Your task to perform on an android device: Open Google Chrome and open the bookmarks view Image 0: 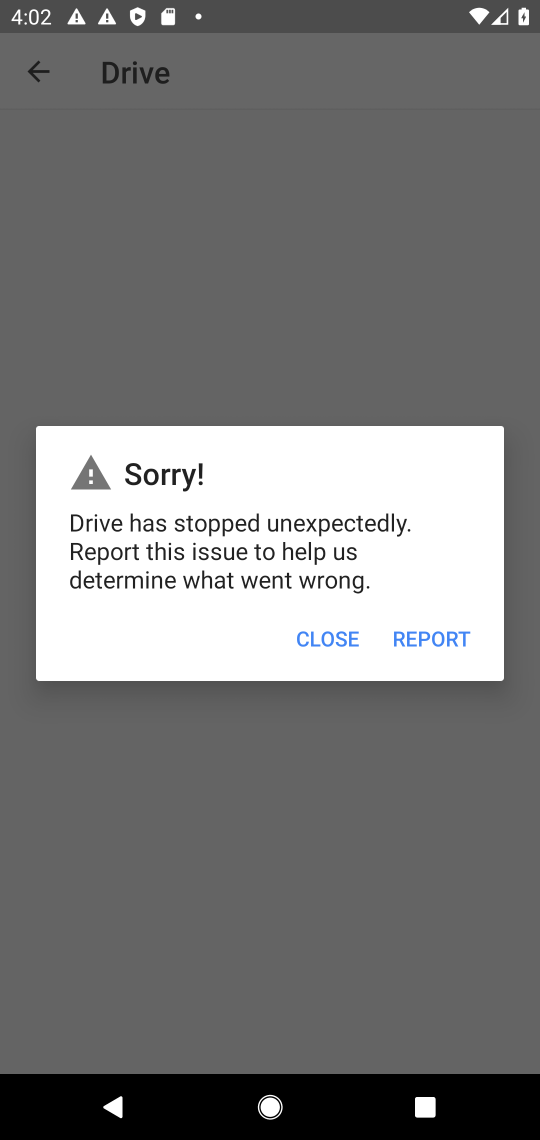
Step 0: press home button
Your task to perform on an android device: Open Google Chrome and open the bookmarks view Image 1: 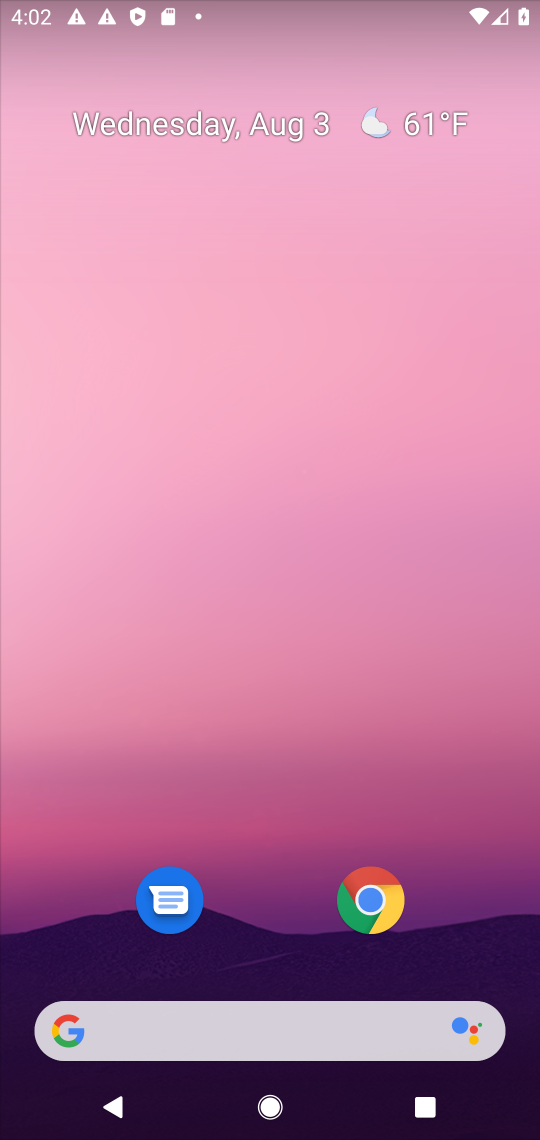
Step 1: click (381, 894)
Your task to perform on an android device: Open Google Chrome and open the bookmarks view Image 2: 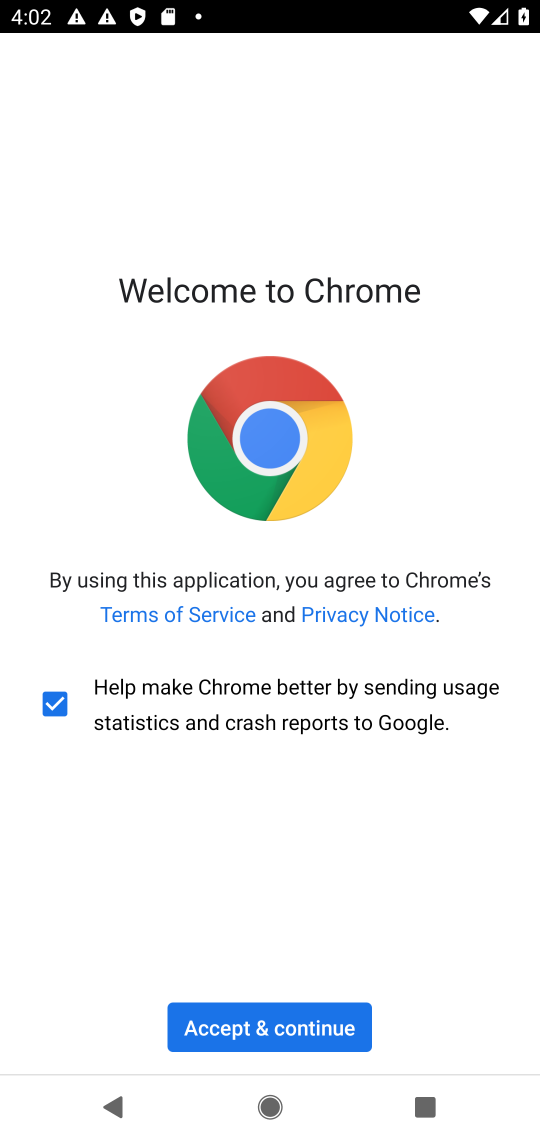
Step 2: click (298, 1024)
Your task to perform on an android device: Open Google Chrome and open the bookmarks view Image 3: 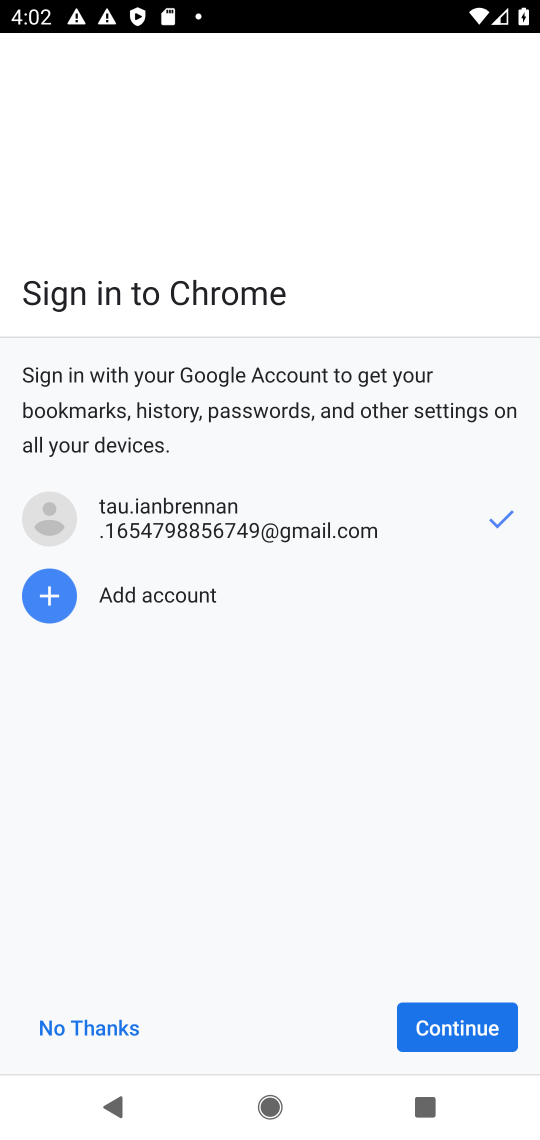
Step 3: click (471, 1022)
Your task to perform on an android device: Open Google Chrome and open the bookmarks view Image 4: 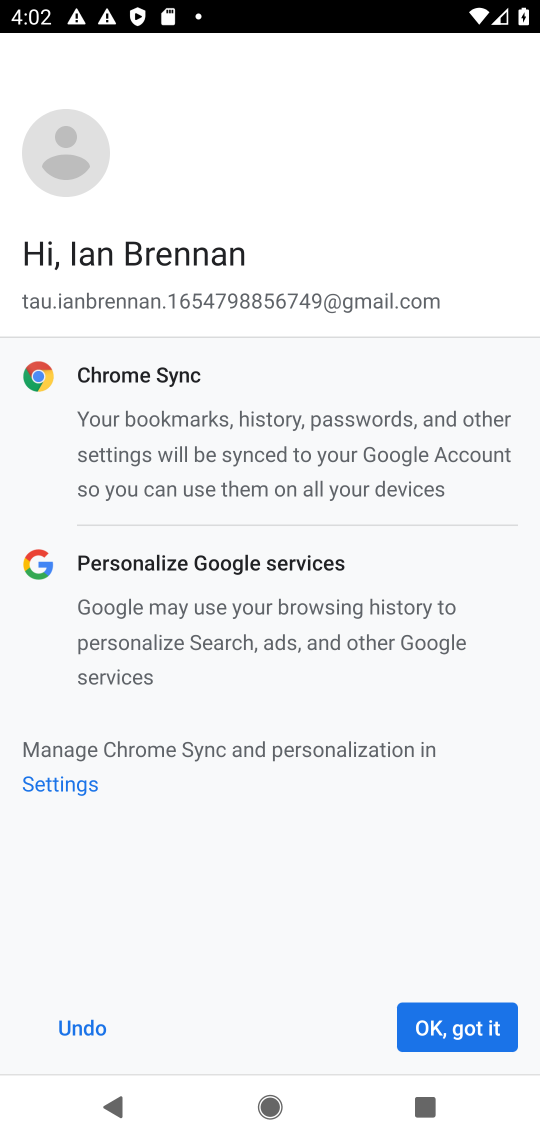
Step 4: click (471, 1022)
Your task to perform on an android device: Open Google Chrome and open the bookmarks view Image 5: 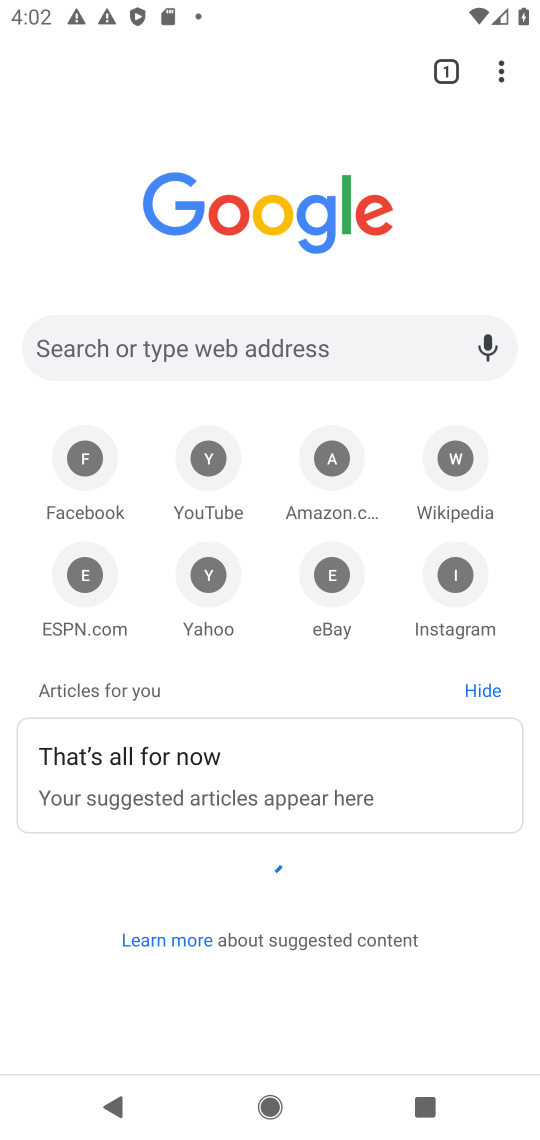
Step 5: click (492, 83)
Your task to perform on an android device: Open Google Chrome and open the bookmarks view Image 6: 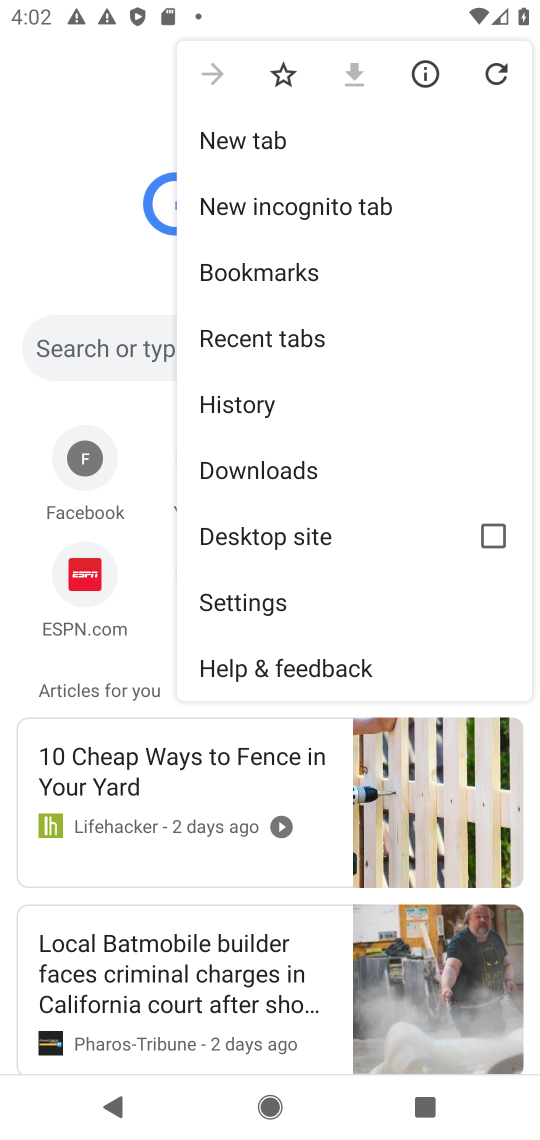
Step 6: click (249, 263)
Your task to perform on an android device: Open Google Chrome and open the bookmarks view Image 7: 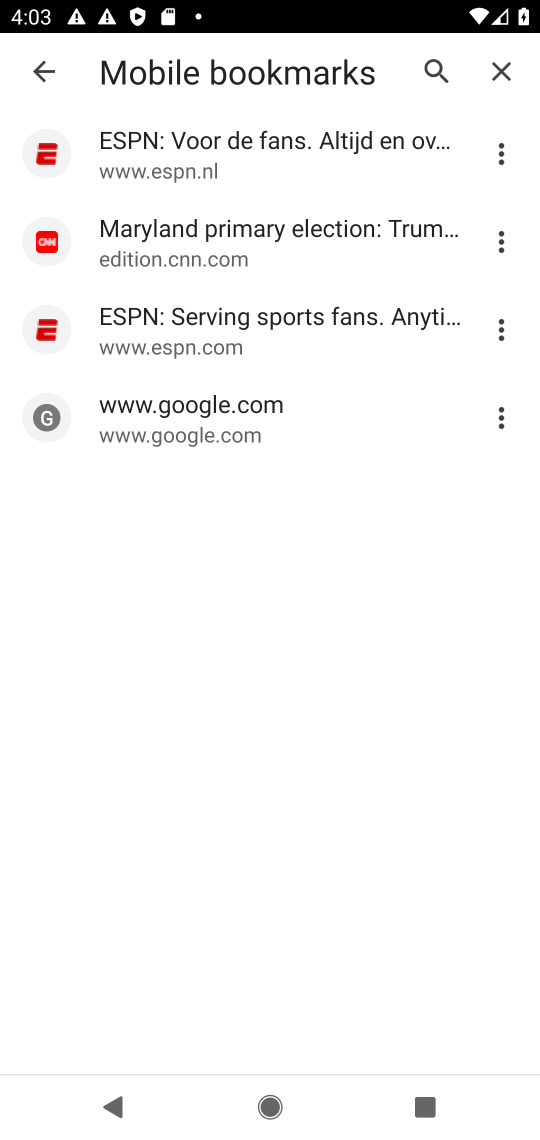
Step 7: task complete